Your task to perform on an android device: Clear all items from cart on walmart.com. Search for energizer triple a on walmart.com, select the first entry, add it to the cart, then select checkout. Image 0: 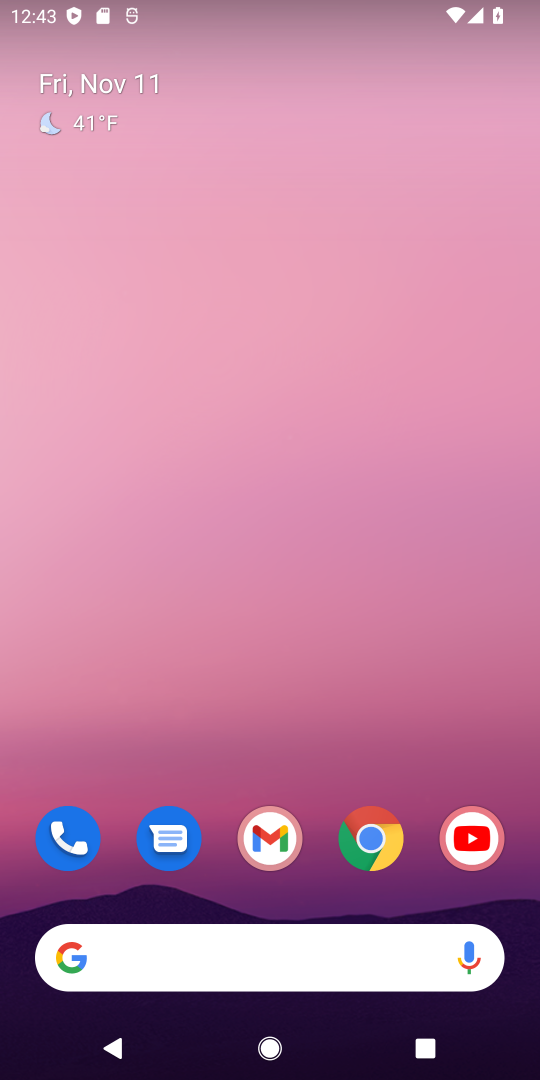
Step 0: click (373, 836)
Your task to perform on an android device: Clear all items from cart on walmart.com. Search for energizer triple a on walmart.com, select the first entry, add it to the cart, then select checkout. Image 1: 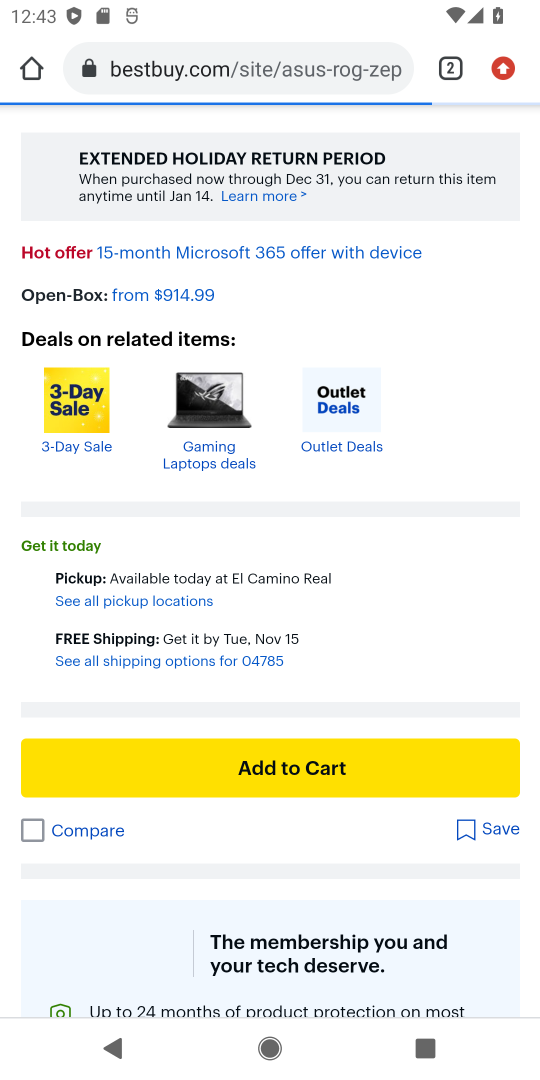
Step 1: click (450, 75)
Your task to perform on an android device: Clear all items from cart on walmart.com. Search for energizer triple a on walmart.com, select the first entry, add it to the cart, then select checkout. Image 2: 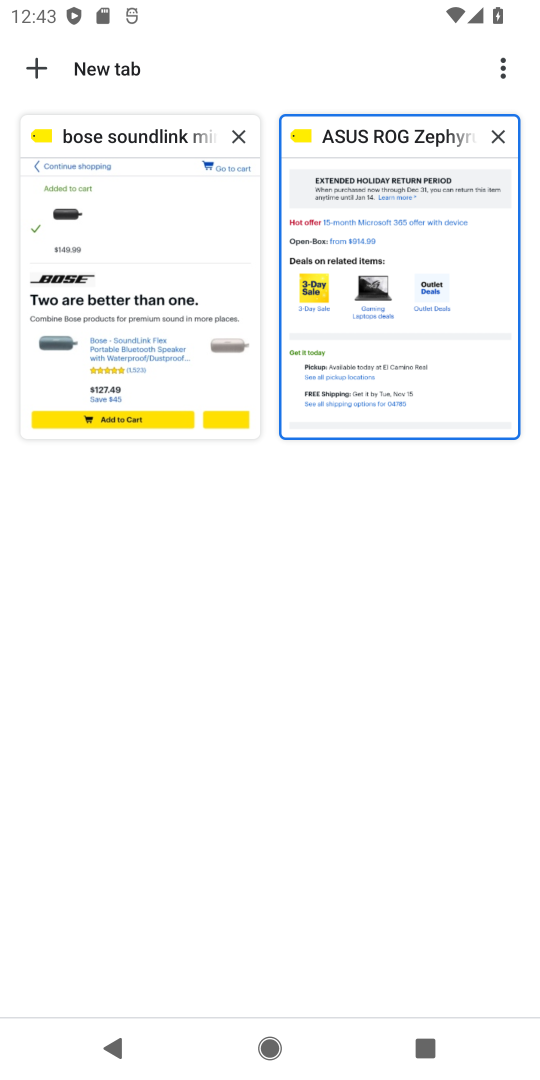
Step 2: click (243, 129)
Your task to perform on an android device: Clear all items from cart on walmart.com. Search for energizer triple a on walmart.com, select the first entry, add it to the cart, then select checkout. Image 3: 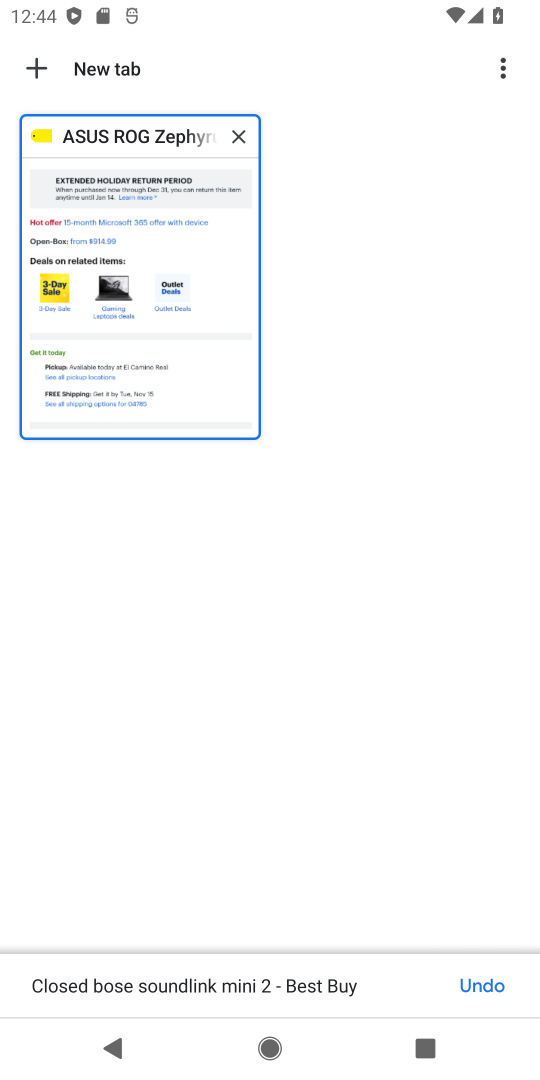
Step 3: click (37, 62)
Your task to perform on an android device: Clear all items from cart on walmart.com. Search for energizer triple a on walmart.com, select the first entry, add it to the cart, then select checkout. Image 4: 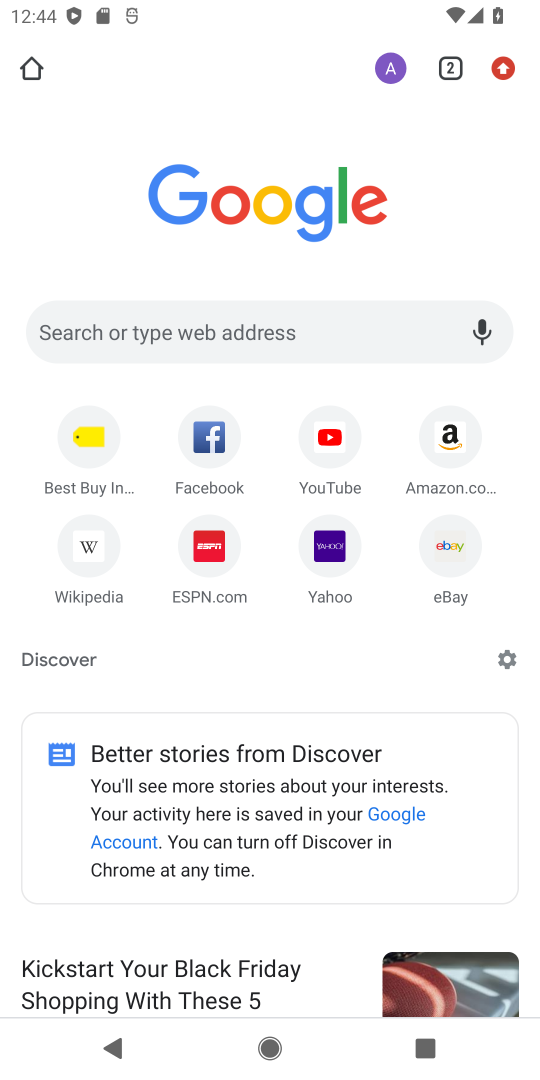
Step 4: click (174, 328)
Your task to perform on an android device: Clear all items from cart on walmart.com. Search for energizer triple a on walmart.com, select the first entry, add it to the cart, then select checkout. Image 5: 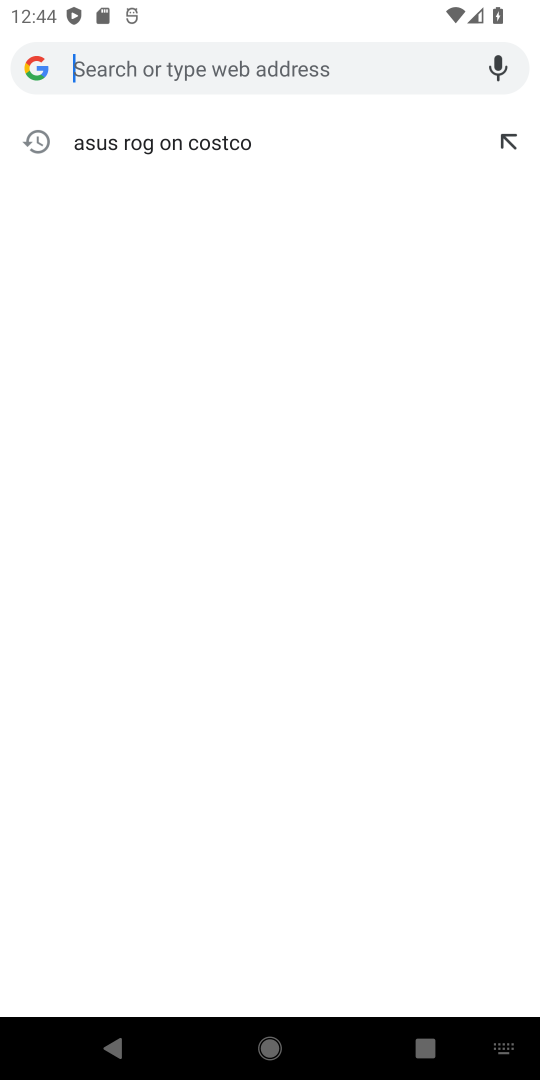
Step 5: type "walmart"
Your task to perform on an android device: Clear all items from cart on walmart.com. Search for energizer triple a on walmart.com, select the first entry, add it to the cart, then select checkout. Image 6: 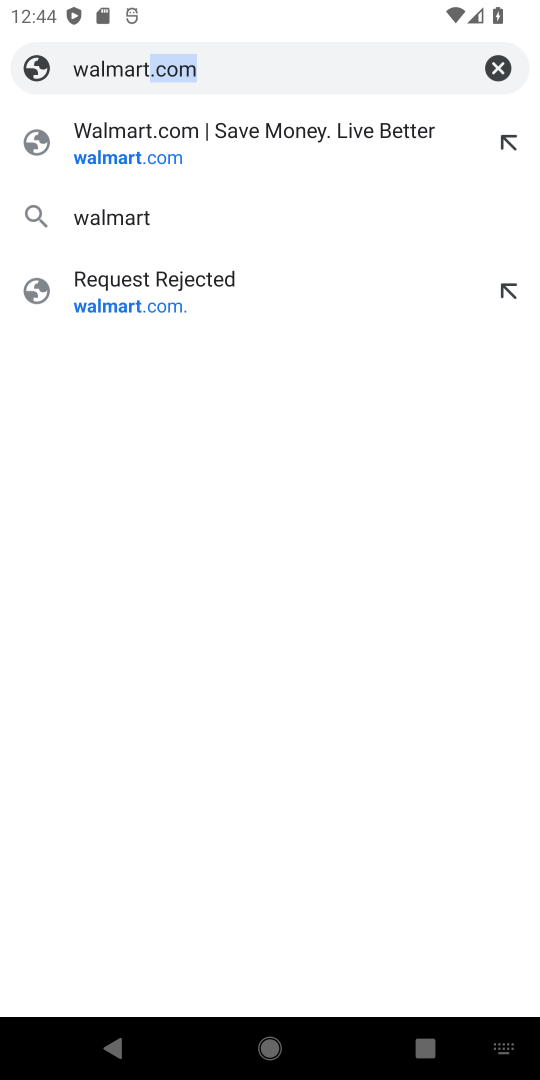
Step 6: click (123, 152)
Your task to perform on an android device: Clear all items from cart on walmart.com. Search for energizer triple a on walmart.com, select the first entry, add it to the cart, then select checkout. Image 7: 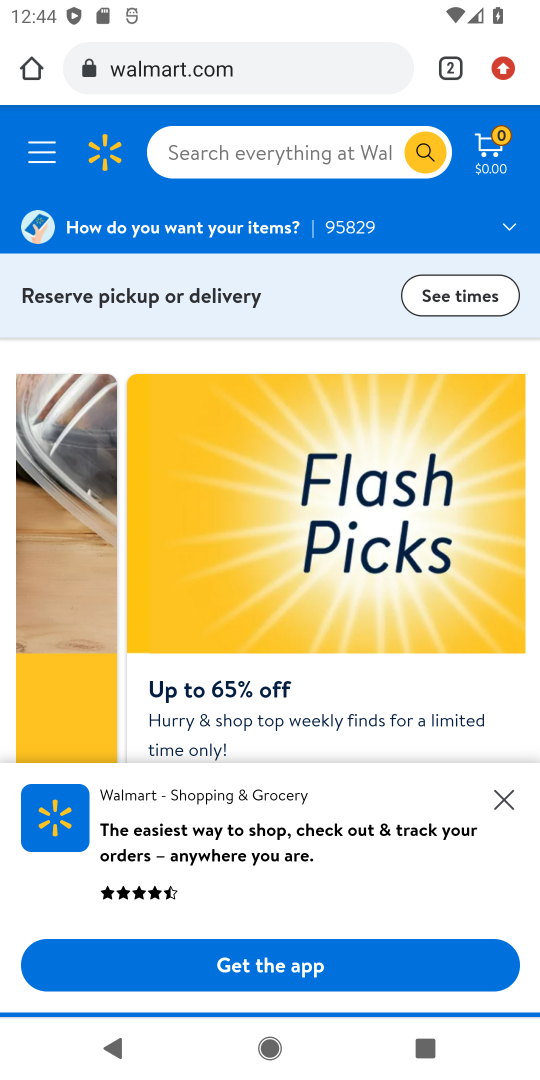
Step 7: click (505, 811)
Your task to perform on an android device: Clear all items from cart on walmart.com. Search for energizer triple a on walmart.com, select the first entry, add it to the cart, then select checkout. Image 8: 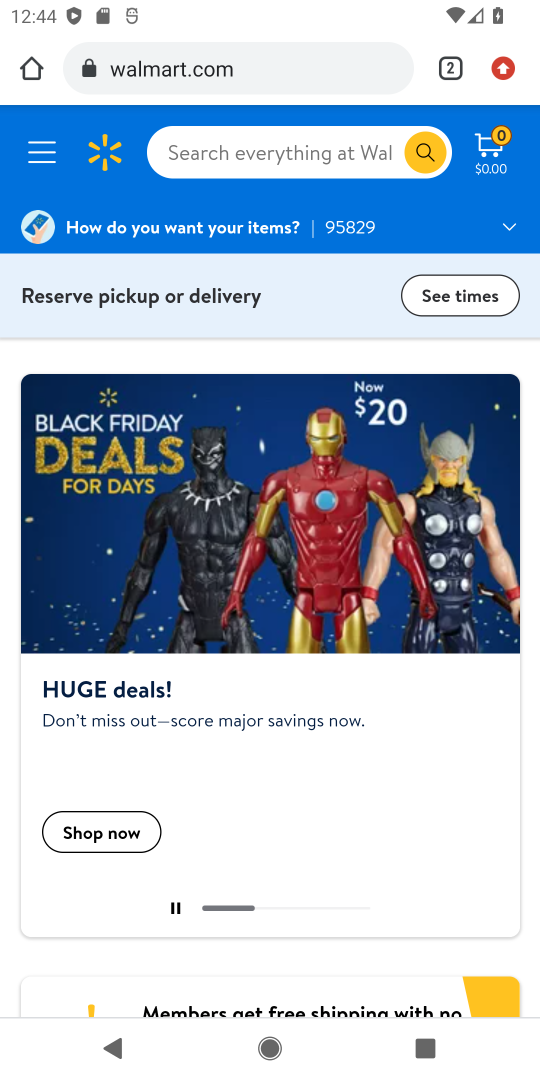
Step 8: click (206, 150)
Your task to perform on an android device: Clear all items from cart on walmart.com. Search for energizer triple a on walmart.com, select the first entry, add it to the cart, then select checkout. Image 9: 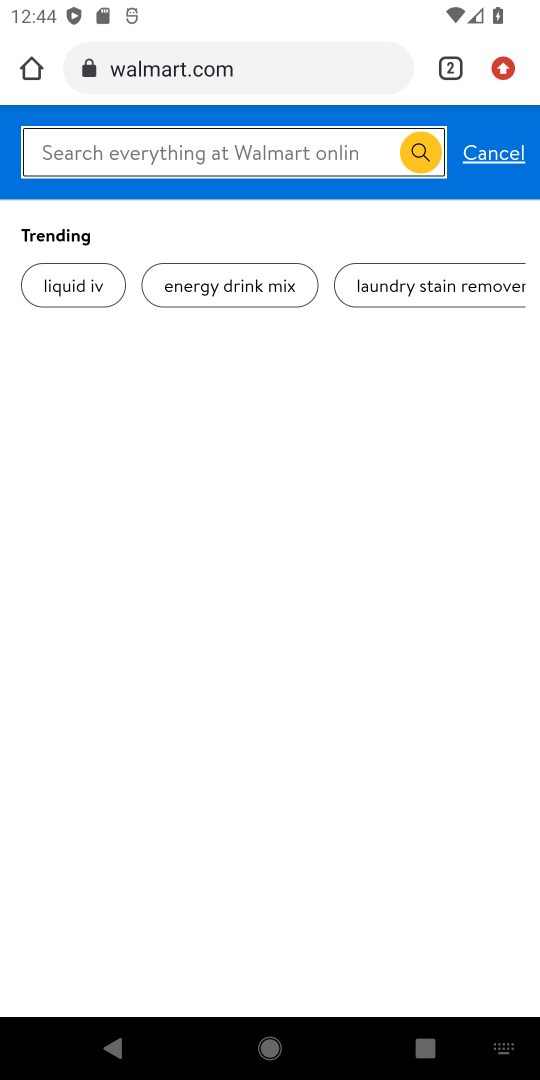
Step 9: type "energizer triple a "
Your task to perform on an android device: Clear all items from cart on walmart.com. Search for energizer triple a on walmart.com, select the first entry, add it to the cart, then select checkout. Image 10: 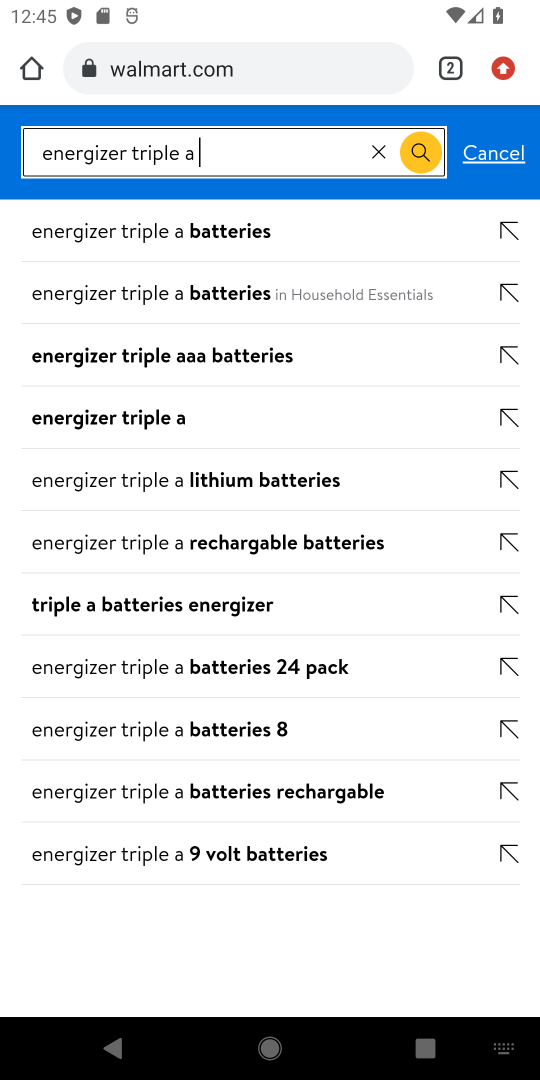
Step 10: click (186, 285)
Your task to perform on an android device: Clear all items from cart on walmart.com. Search for energizer triple a on walmart.com, select the first entry, add it to the cart, then select checkout. Image 11: 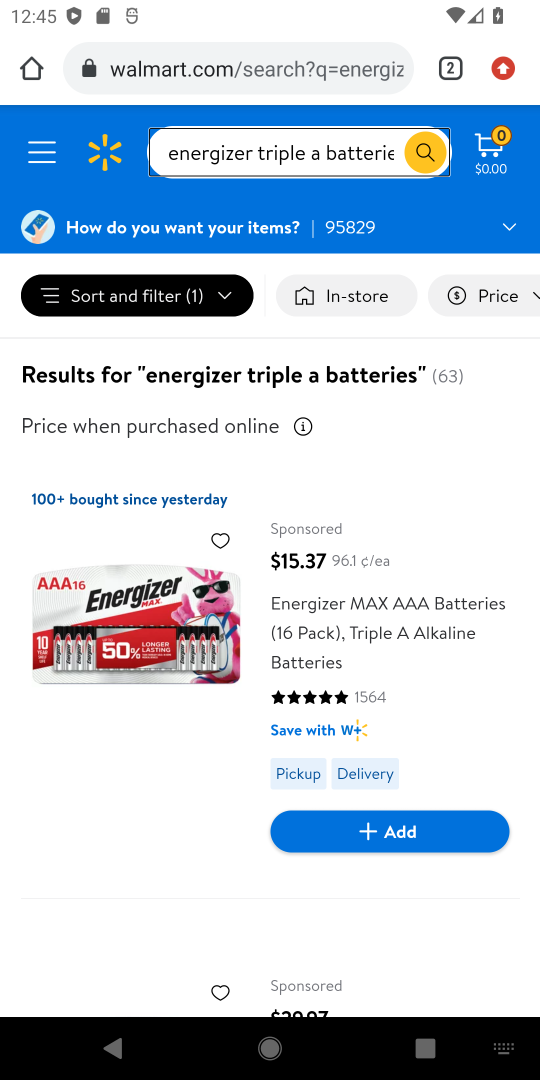
Step 11: click (419, 843)
Your task to perform on an android device: Clear all items from cart on walmart.com. Search for energizer triple a on walmart.com, select the first entry, add it to the cart, then select checkout. Image 12: 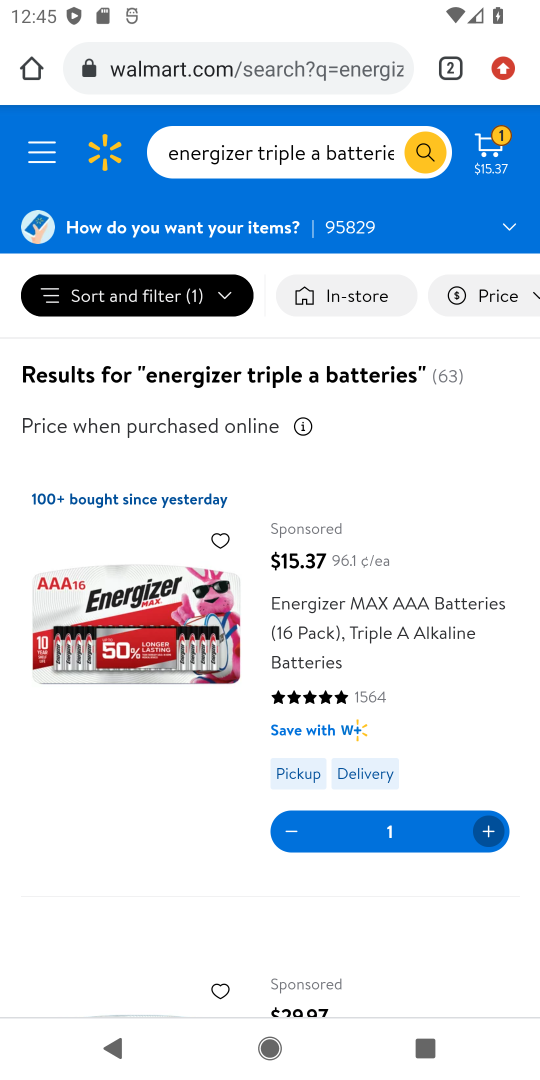
Step 12: task complete